Your task to perform on an android device: turn on airplane mode Image 0: 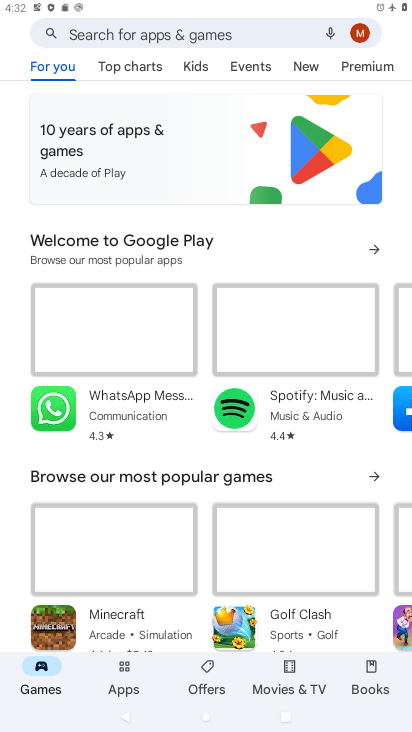
Step 0: press home button
Your task to perform on an android device: turn on airplane mode Image 1: 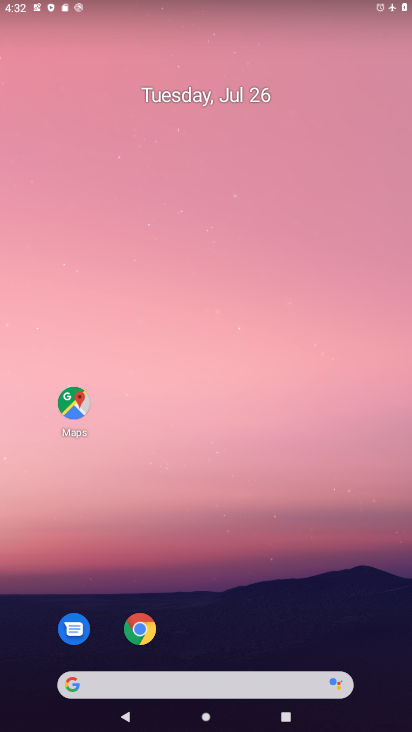
Step 1: drag from (231, 725) to (261, 250)
Your task to perform on an android device: turn on airplane mode Image 2: 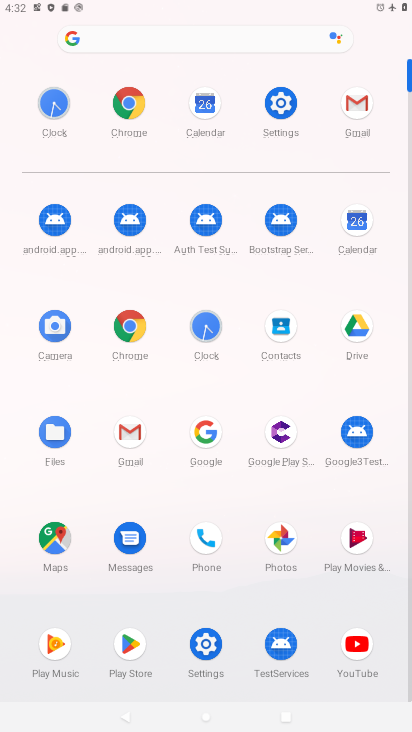
Step 2: click (286, 105)
Your task to perform on an android device: turn on airplane mode Image 3: 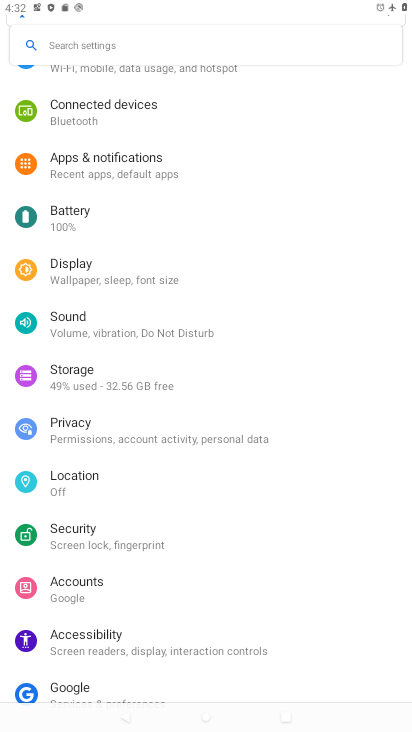
Step 3: drag from (215, 119) to (200, 552)
Your task to perform on an android device: turn on airplane mode Image 4: 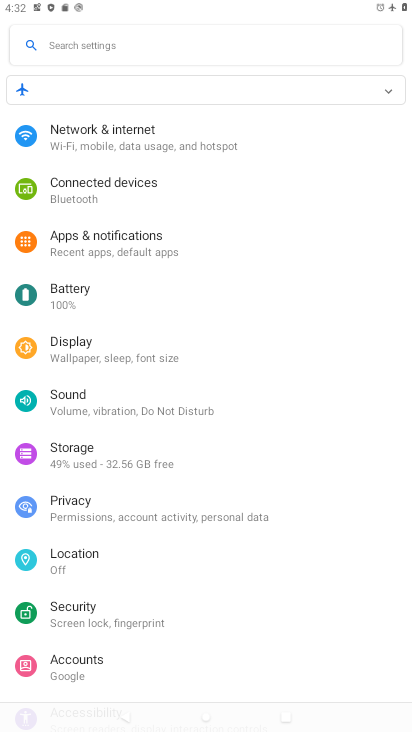
Step 4: click (110, 145)
Your task to perform on an android device: turn on airplane mode Image 5: 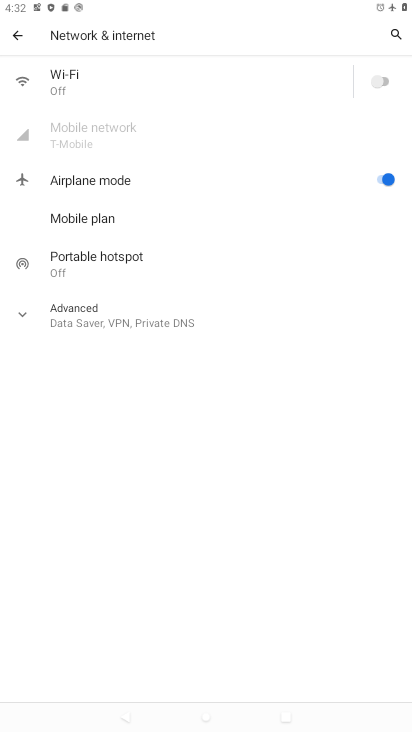
Step 5: task complete